Your task to perform on an android device: Go to wifi settings Image 0: 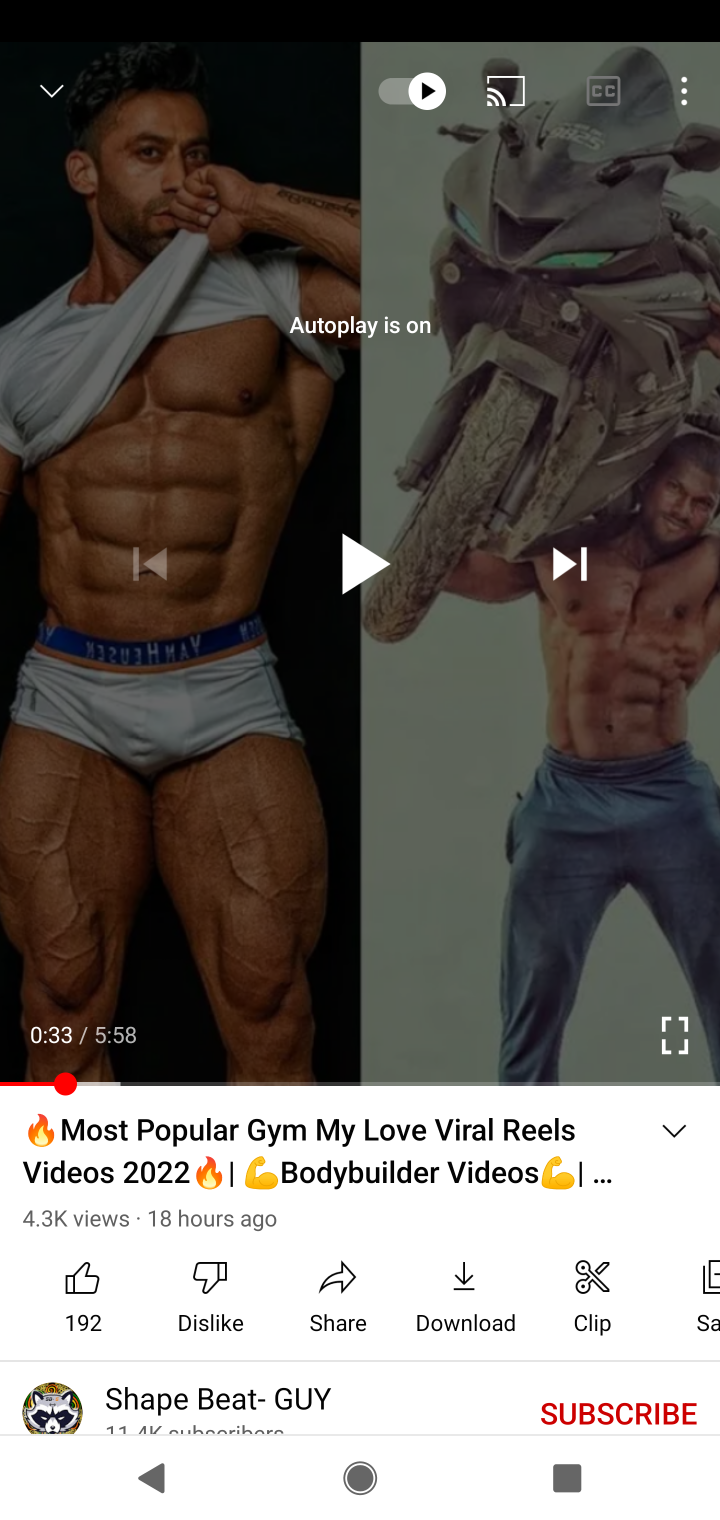
Step 0: press home button
Your task to perform on an android device: Go to wifi settings Image 1: 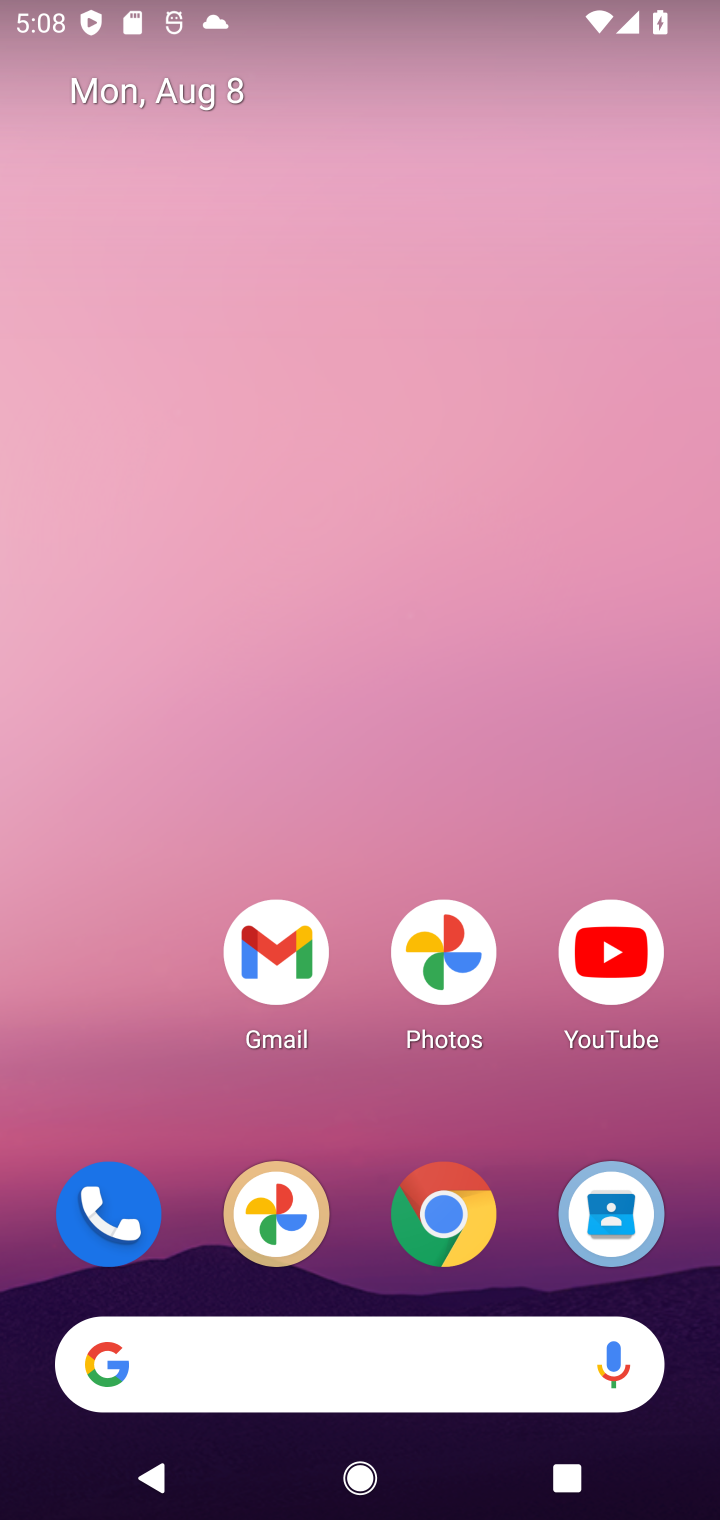
Step 1: drag from (396, 1294) to (391, 104)
Your task to perform on an android device: Go to wifi settings Image 2: 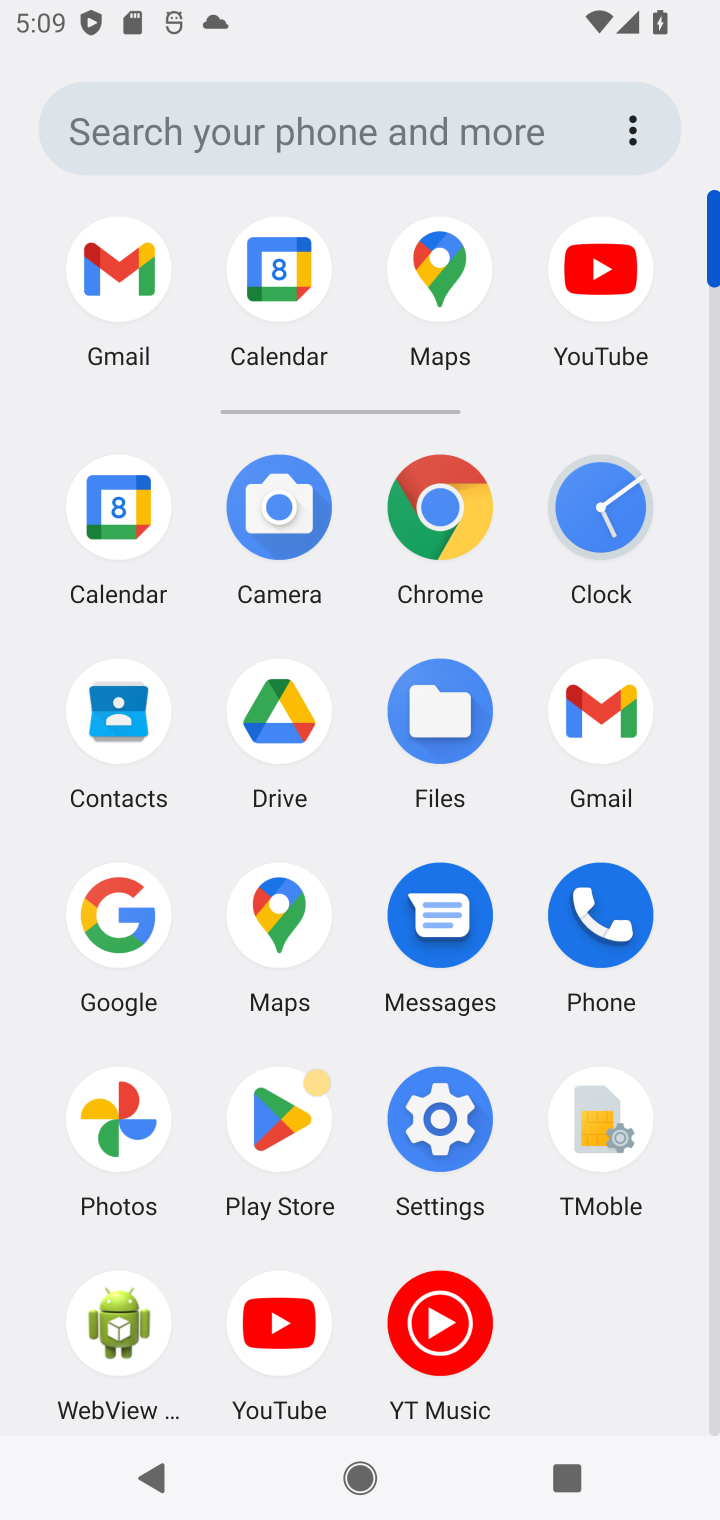
Step 2: click (445, 1149)
Your task to perform on an android device: Go to wifi settings Image 3: 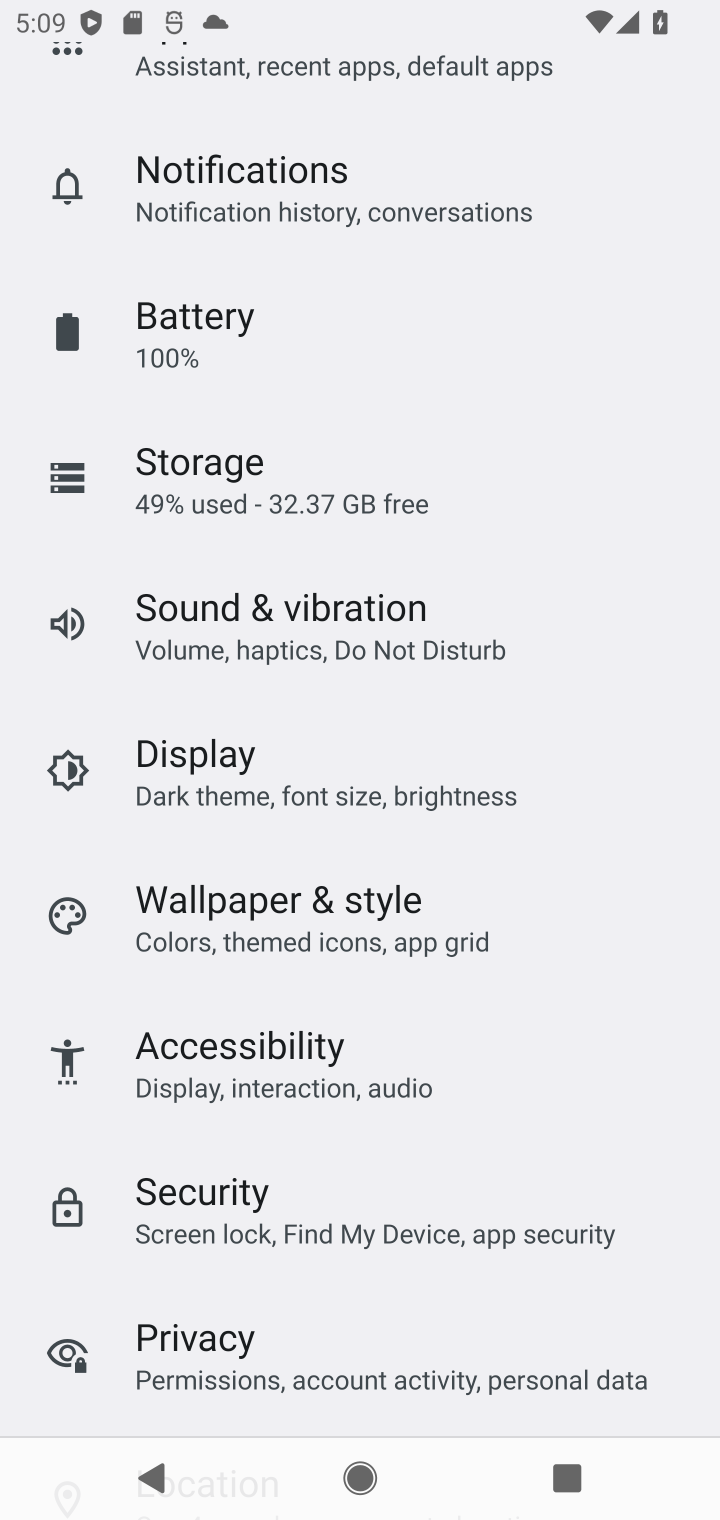
Step 3: drag from (218, 586) to (251, 959)
Your task to perform on an android device: Go to wifi settings Image 4: 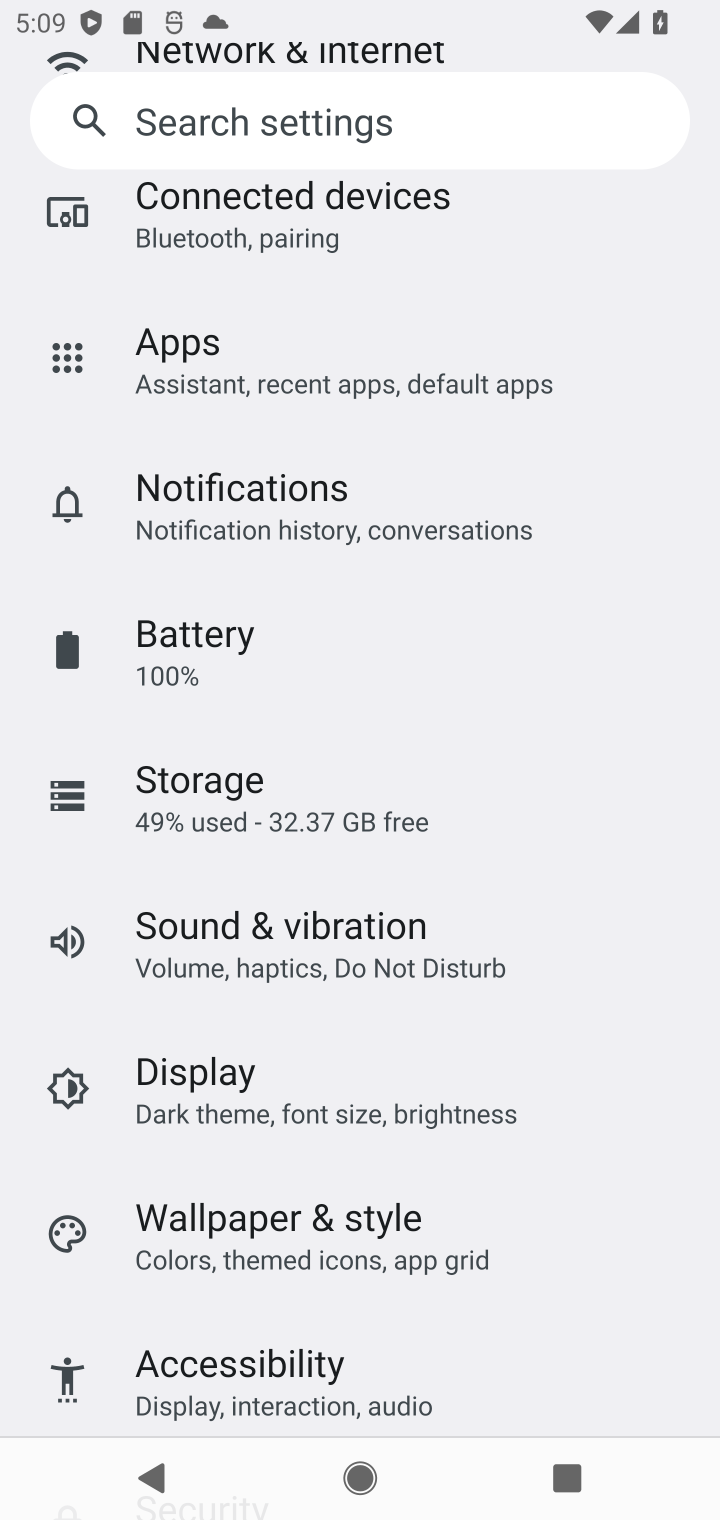
Step 4: drag from (190, 313) to (249, 1121)
Your task to perform on an android device: Go to wifi settings Image 5: 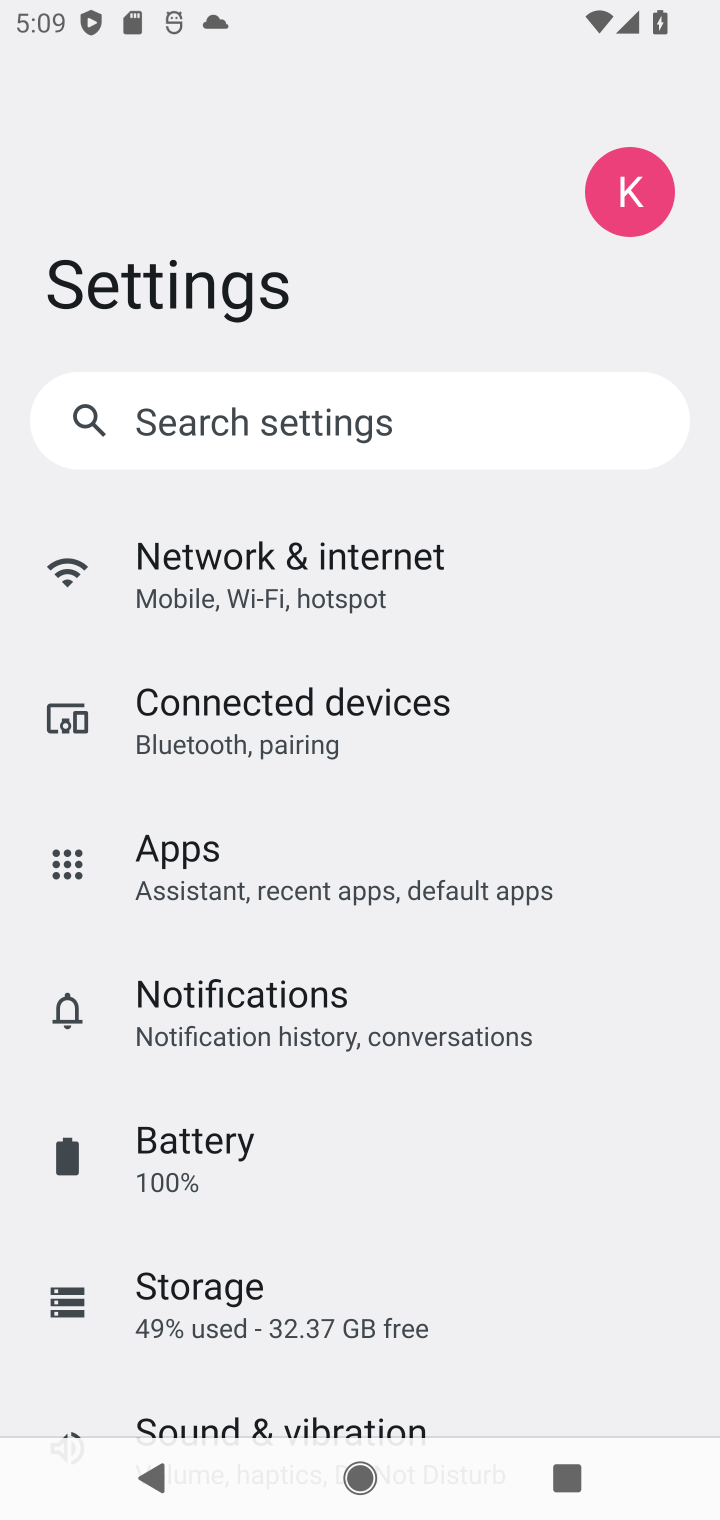
Step 5: click (253, 578)
Your task to perform on an android device: Go to wifi settings Image 6: 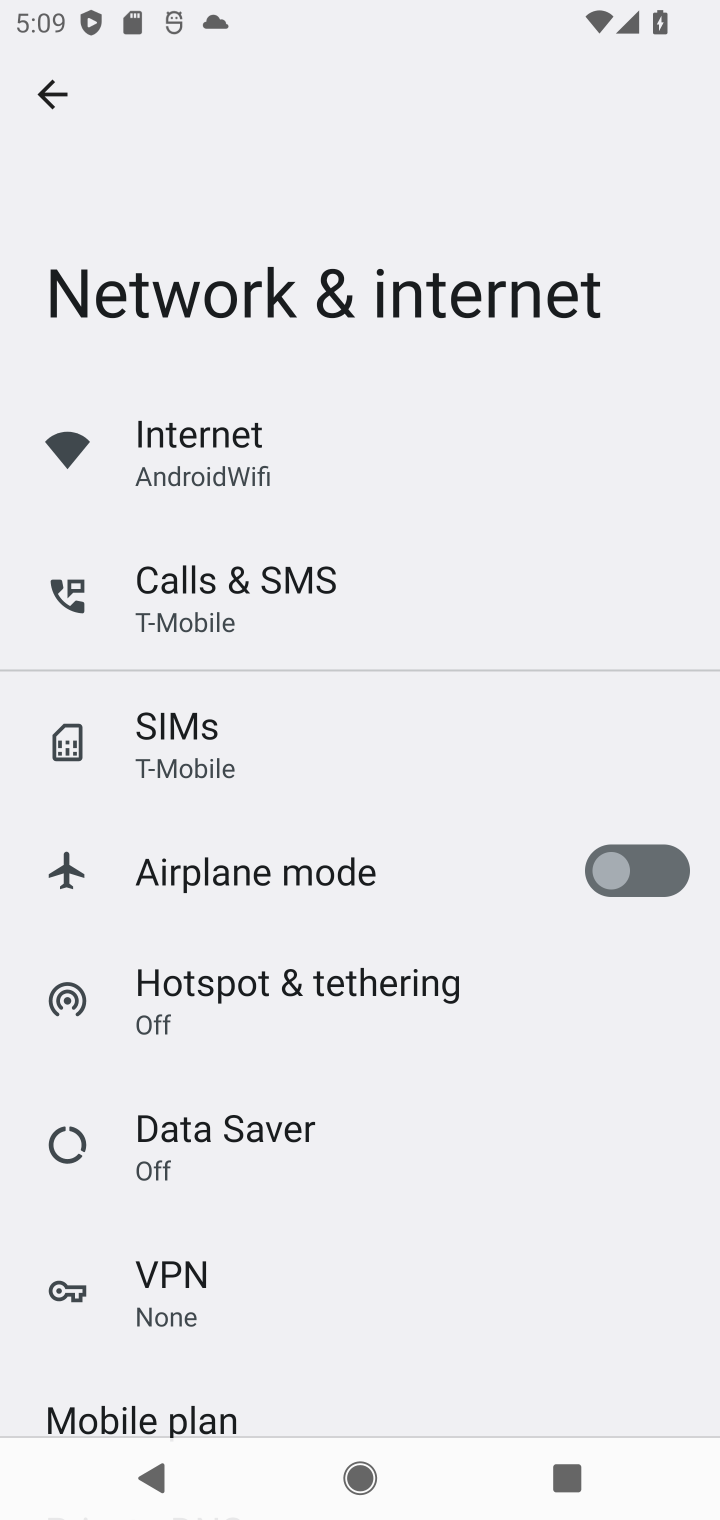
Step 6: click (194, 432)
Your task to perform on an android device: Go to wifi settings Image 7: 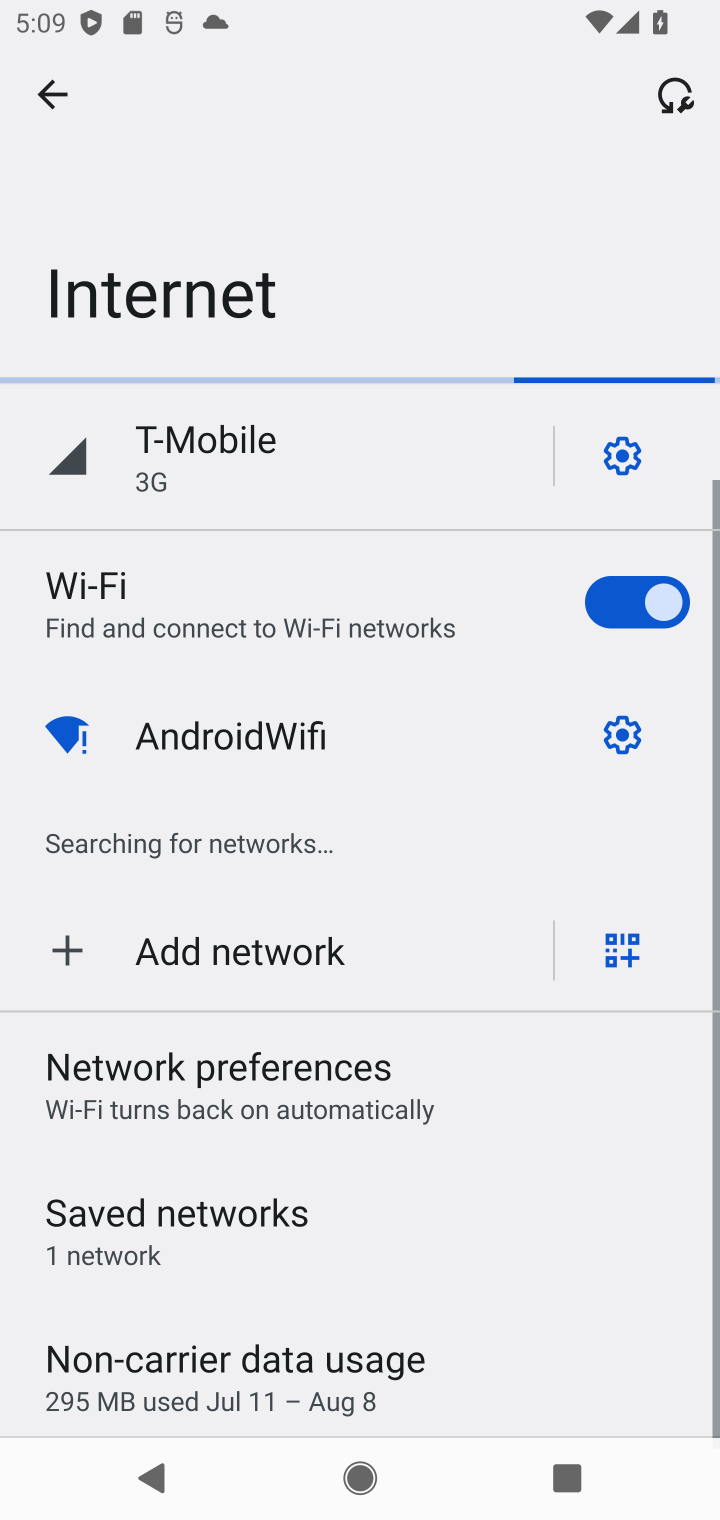
Step 7: task complete